Your task to perform on an android device: turn on location history Image 0: 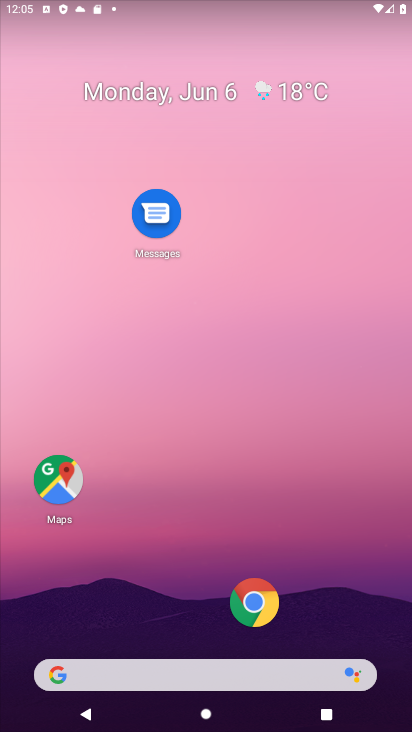
Step 0: drag from (361, 615) to (328, 90)
Your task to perform on an android device: turn on location history Image 1: 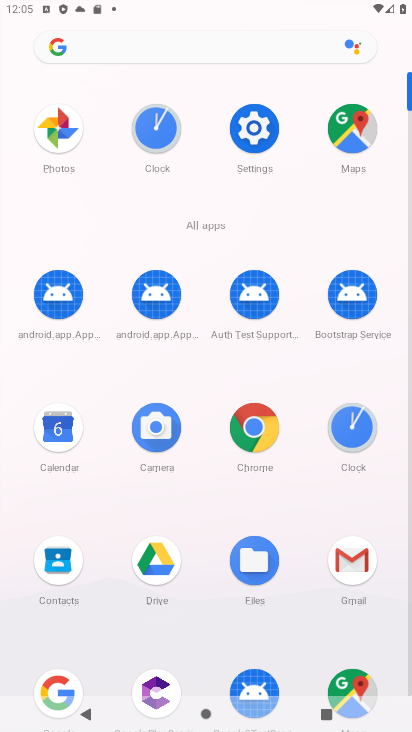
Step 1: click (266, 123)
Your task to perform on an android device: turn on location history Image 2: 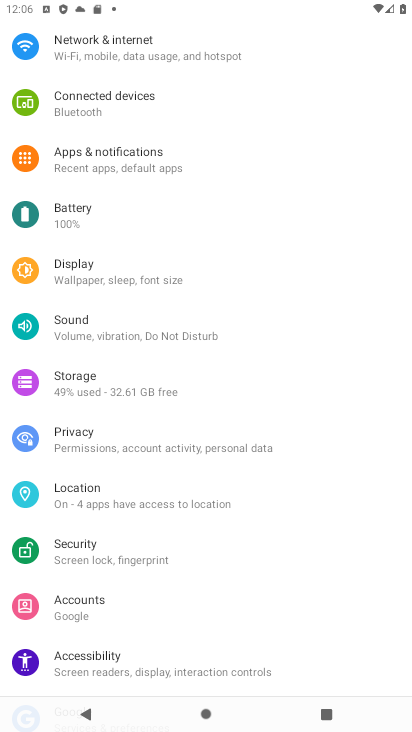
Step 2: click (182, 508)
Your task to perform on an android device: turn on location history Image 3: 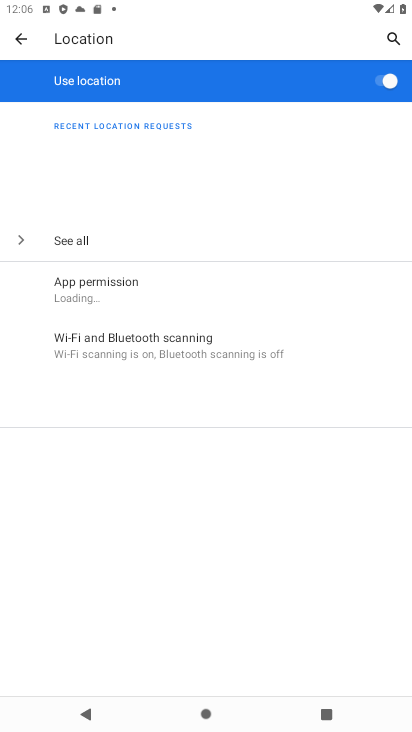
Step 3: task complete